Your task to perform on an android device: turn vacation reply on in the gmail app Image 0: 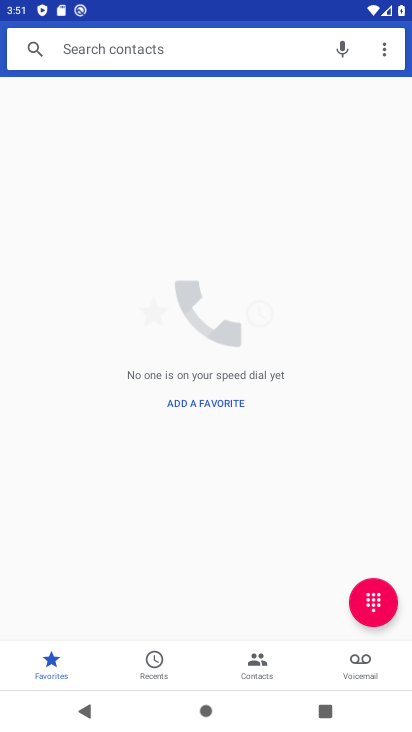
Step 0: drag from (230, 632) to (240, 53)
Your task to perform on an android device: turn vacation reply on in the gmail app Image 1: 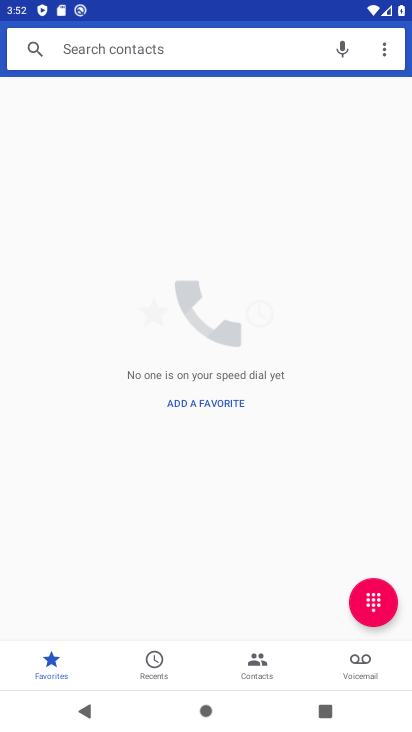
Step 1: press home button
Your task to perform on an android device: turn vacation reply on in the gmail app Image 2: 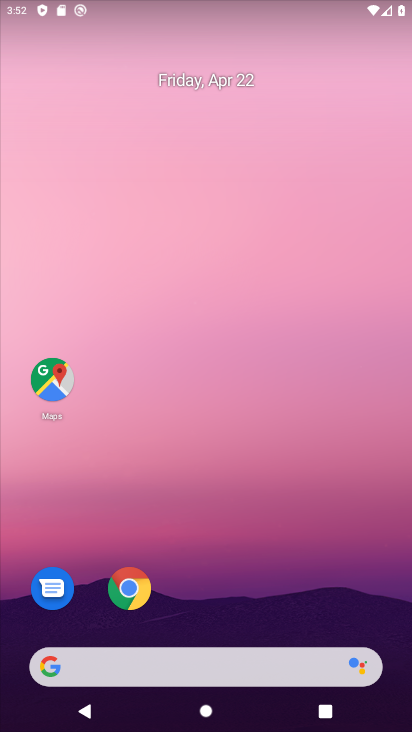
Step 2: press home button
Your task to perform on an android device: turn vacation reply on in the gmail app Image 3: 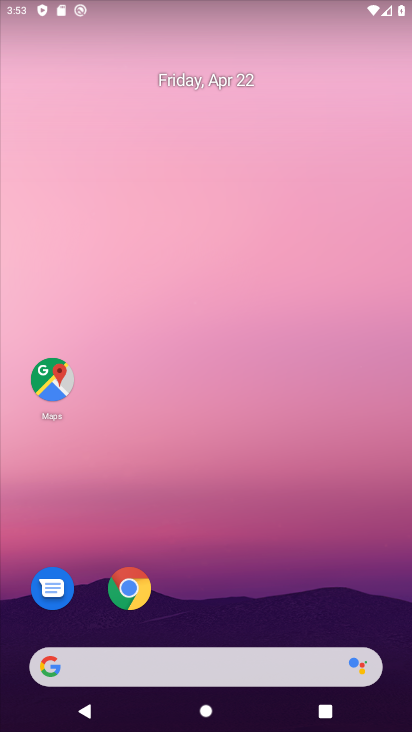
Step 3: drag from (209, 607) to (99, 19)
Your task to perform on an android device: turn vacation reply on in the gmail app Image 4: 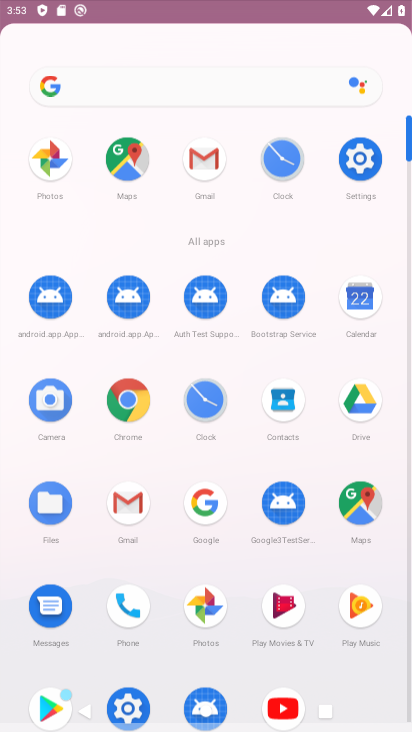
Step 4: click (107, 510)
Your task to perform on an android device: turn vacation reply on in the gmail app Image 5: 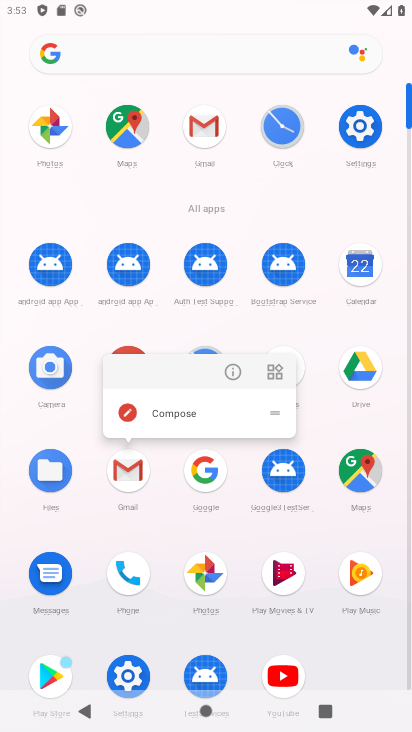
Step 5: click (136, 476)
Your task to perform on an android device: turn vacation reply on in the gmail app Image 6: 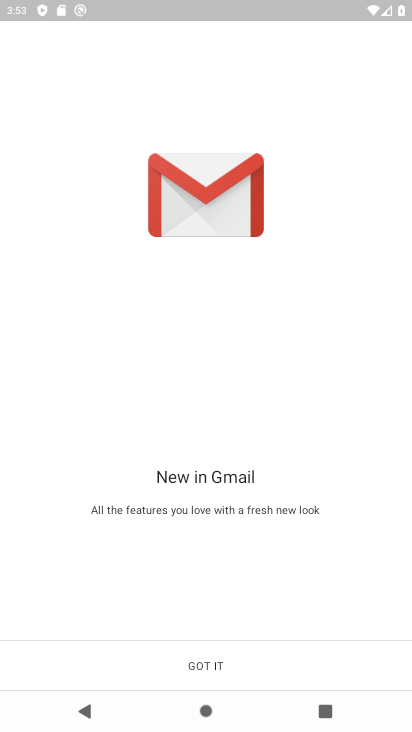
Step 6: click (163, 637)
Your task to perform on an android device: turn vacation reply on in the gmail app Image 7: 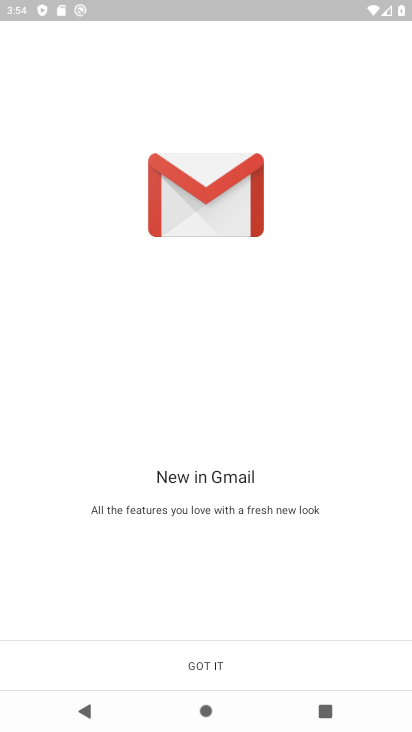
Step 7: click (201, 674)
Your task to perform on an android device: turn vacation reply on in the gmail app Image 8: 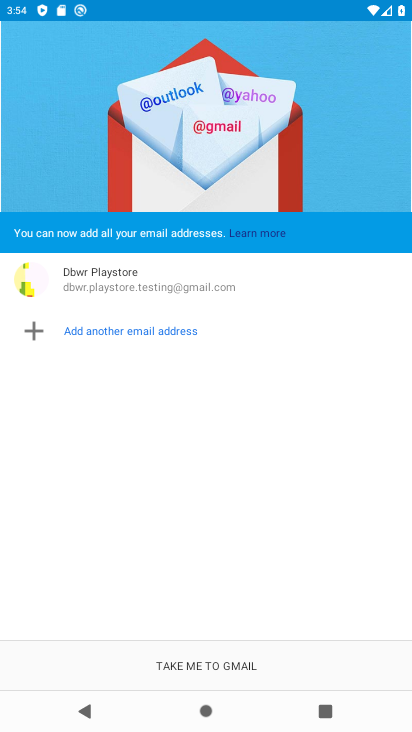
Step 8: click (149, 651)
Your task to perform on an android device: turn vacation reply on in the gmail app Image 9: 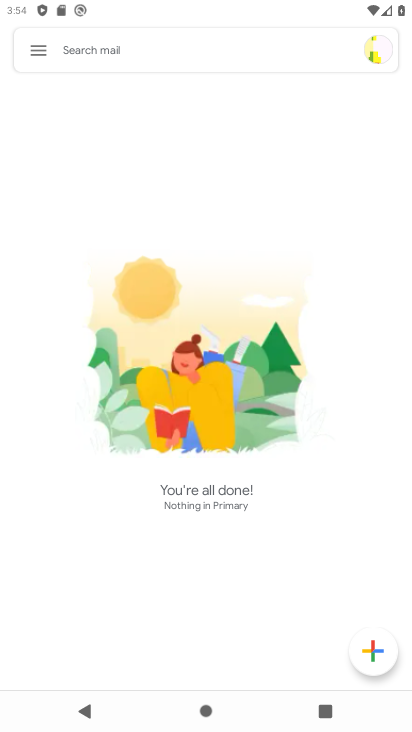
Step 9: click (26, 48)
Your task to perform on an android device: turn vacation reply on in the gmail app Image 10: 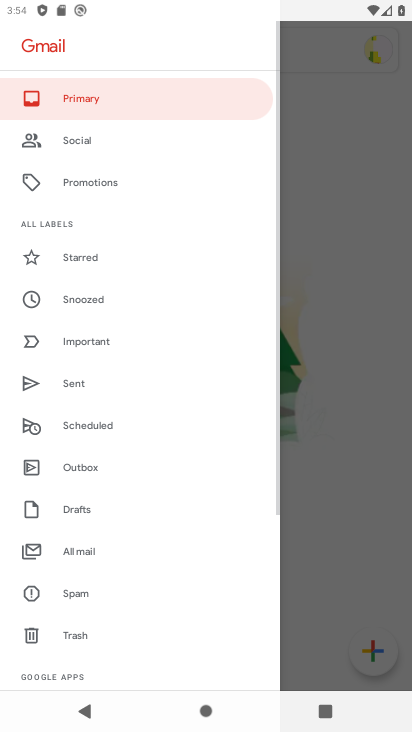
Step 10: drag from (148, 565) to (150, 123)
Your task to perform on an android device: turn vacation reply on in the gmail app Image 11: 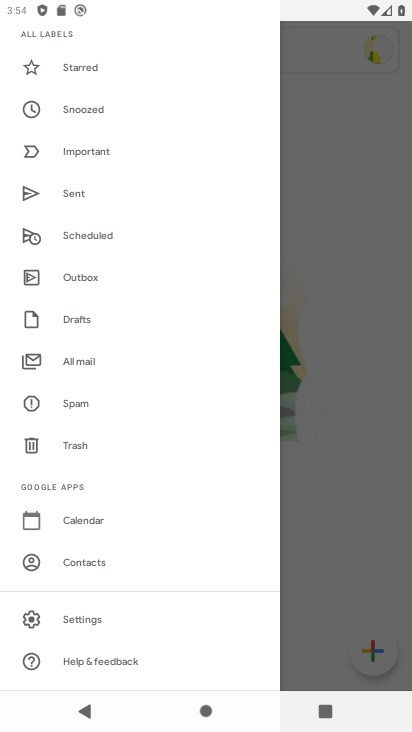
Step 11: click (108, 613)
Your task to perform on an android device: turn vacation reply on in the gmail app Image 12: 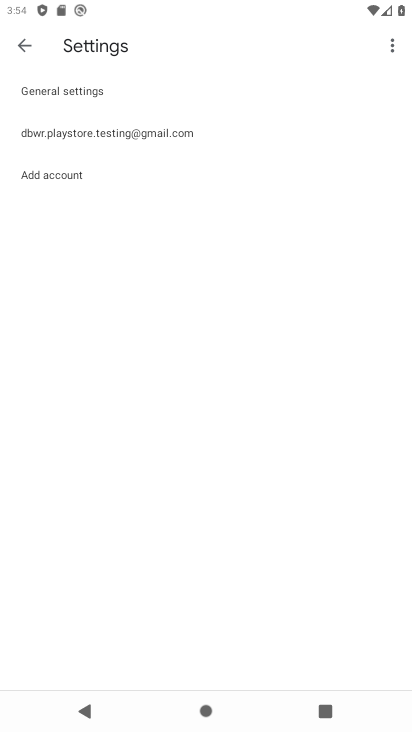
Step 12: click (90, 123)
Your task to perform on an android device: turn vacation reply on in the gmail app Image 13: 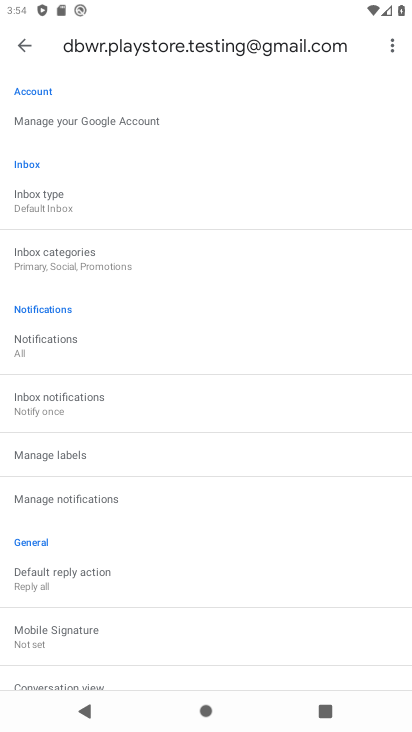
Step 13: drag from (87, 641) to (38, 143)
Your task to perform on an android device: turn vacation reply on in the gmail app Image 14: 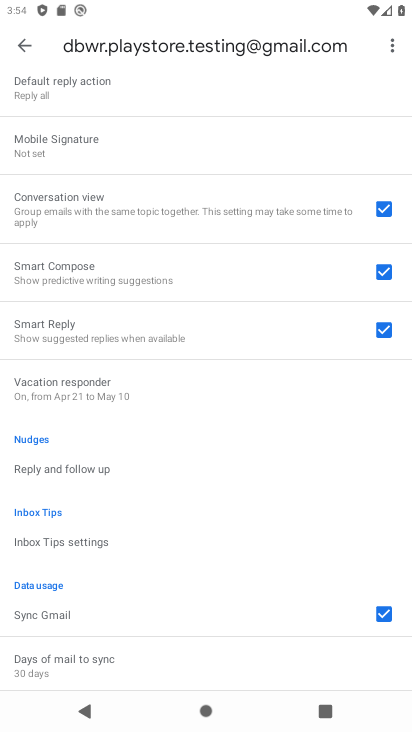
Step 14: click (100, 391)
Your task to perform on an android device: turn vacation reply on in the gmail app Image 15: 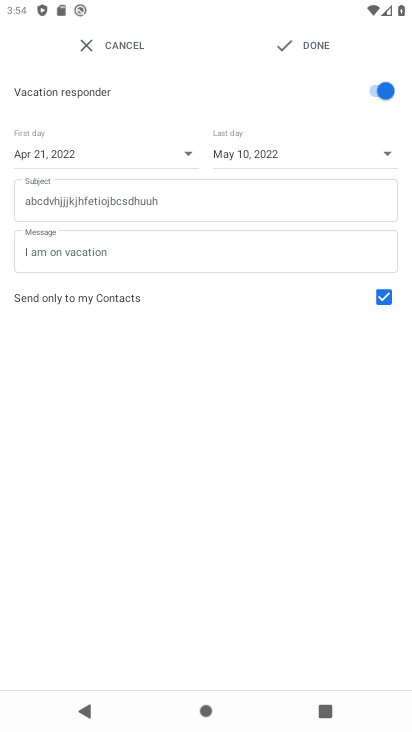
Step 15: click (286, 43)
Your task to perform on an android device: turn vacation reply on in the gmail app Image 16: 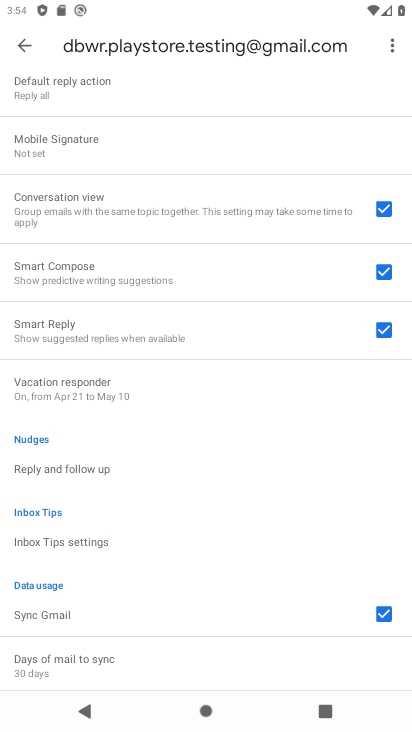
Step 16: task complete